Your task to perform on an android device: toggle translation in the chrome app Image 0: 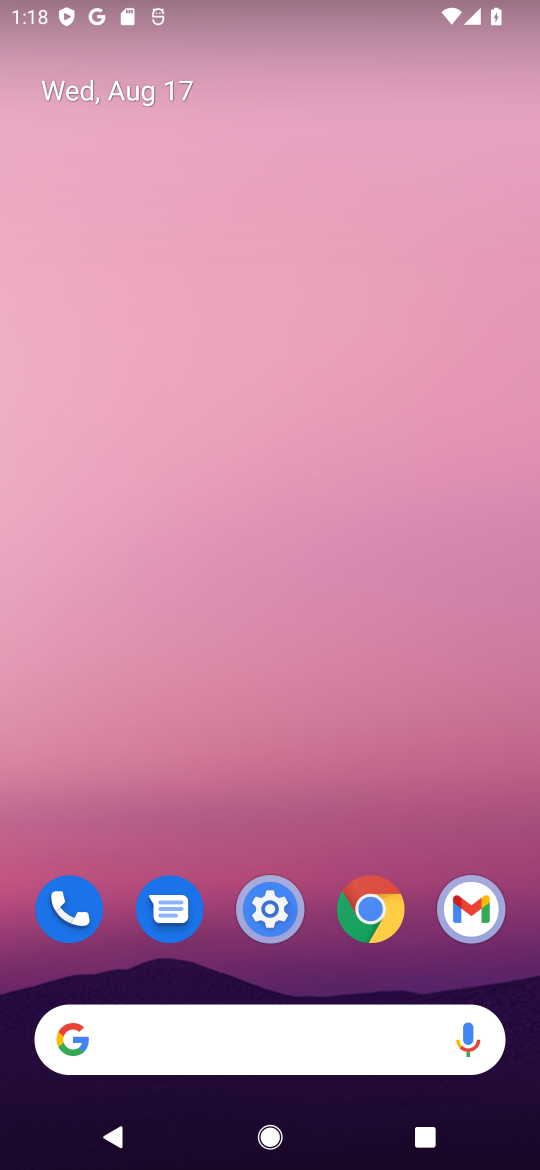
Step 0: click (373, 913)
Your task to perform on an android device: toggle translation in the chrome app Image 1: 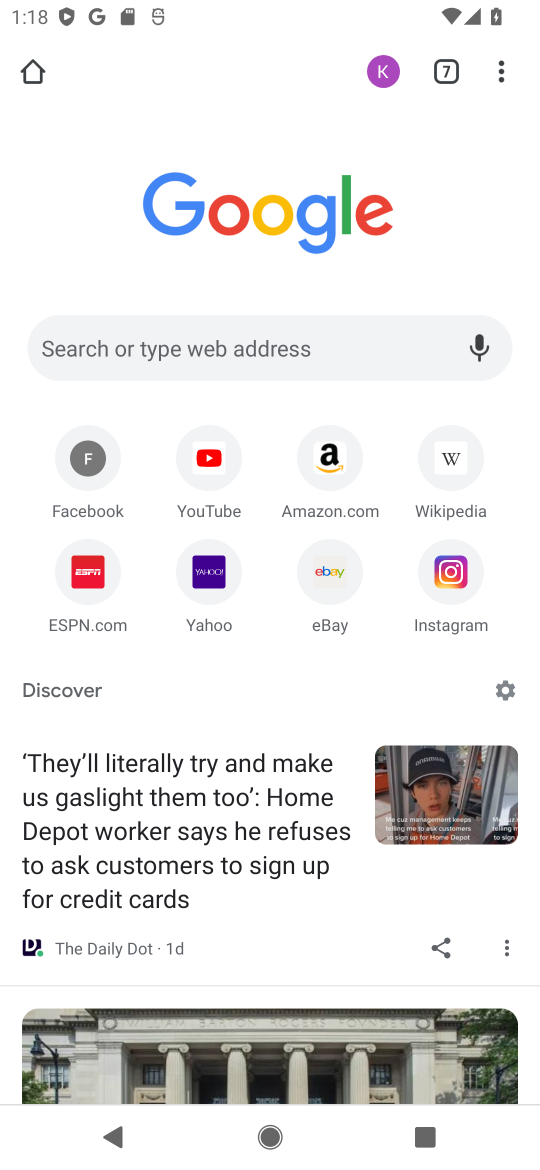
Step 1: click (498, 72)
Your task to perform on an android device: toggle translation in the chrome app Image 2: 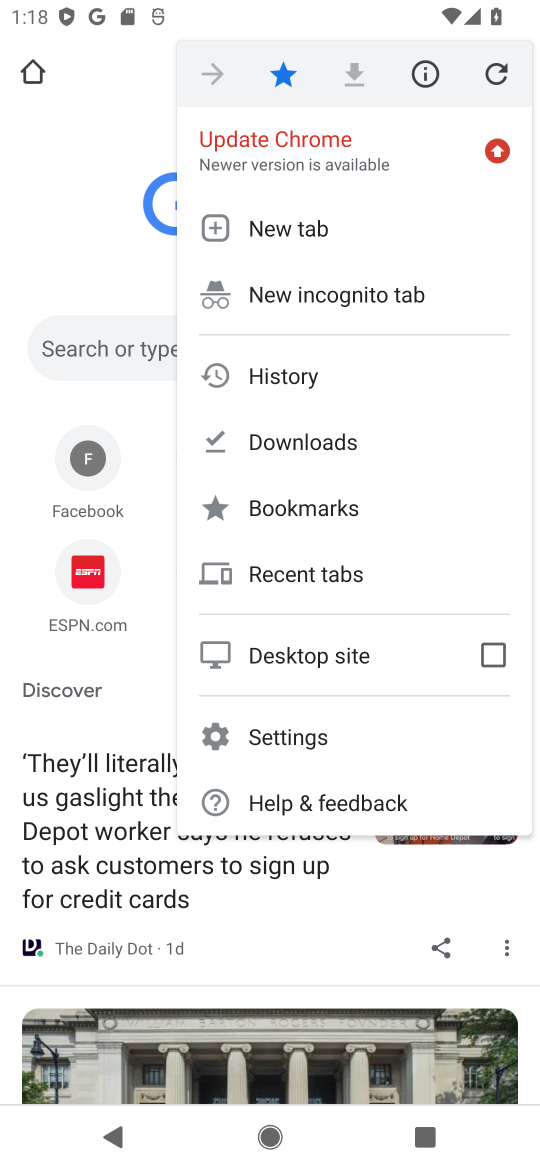
Step 2: click (274, 725)
Your task to perform on an android device: toggle translation in the chrome app Image 3: 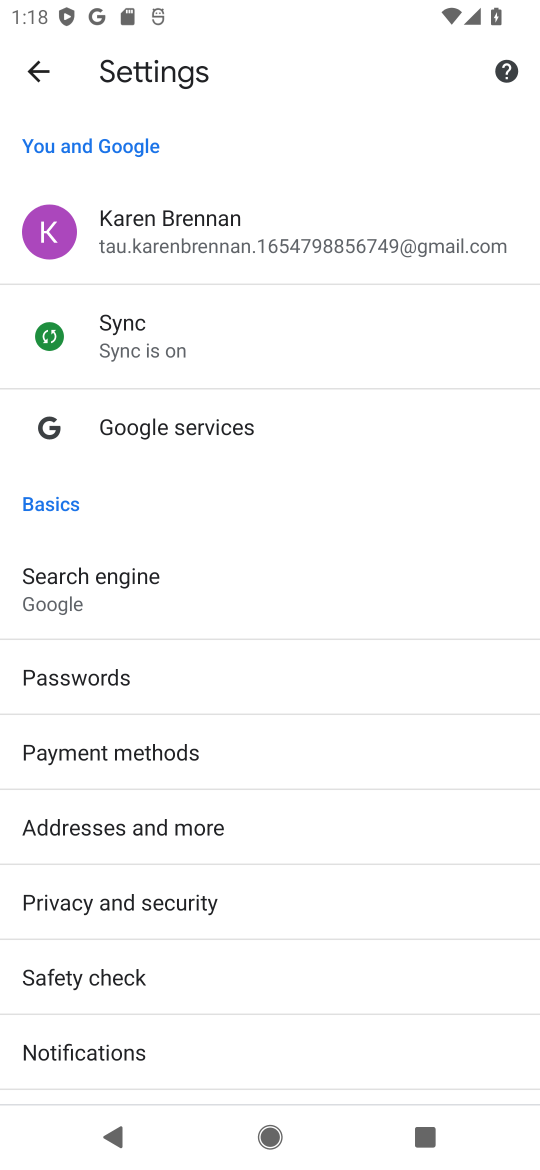
Step 3: drag from (291, 970) to (251, 506)
Your task to perform on an android device: toggle translation in the chrome app Image 4: 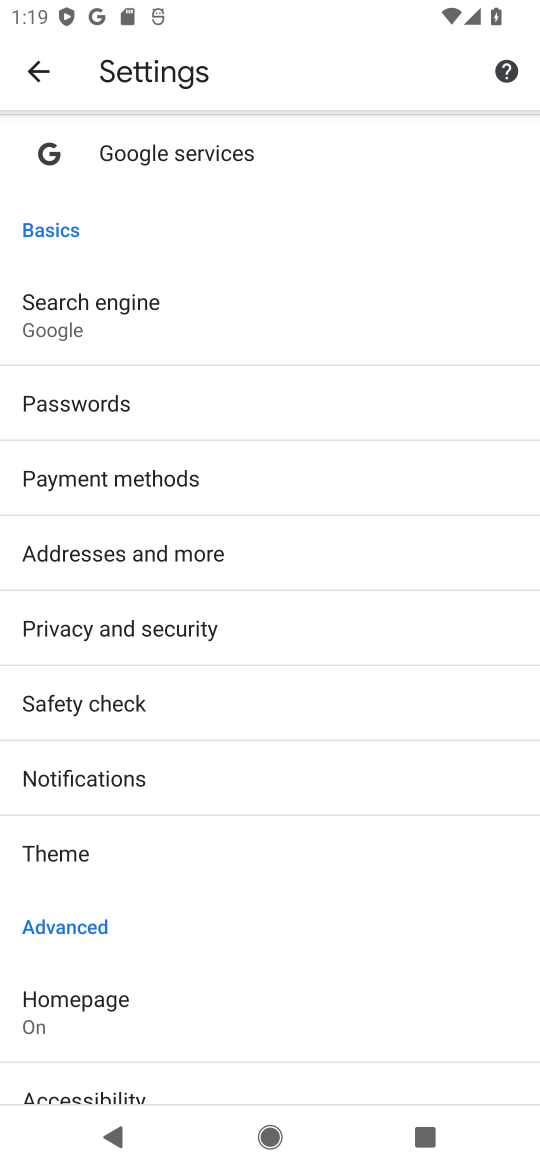
Step 4: drag from (220, 958) to (217, 622)
Your task to perform on an android device: toggle translation in the chrome app Image 5: 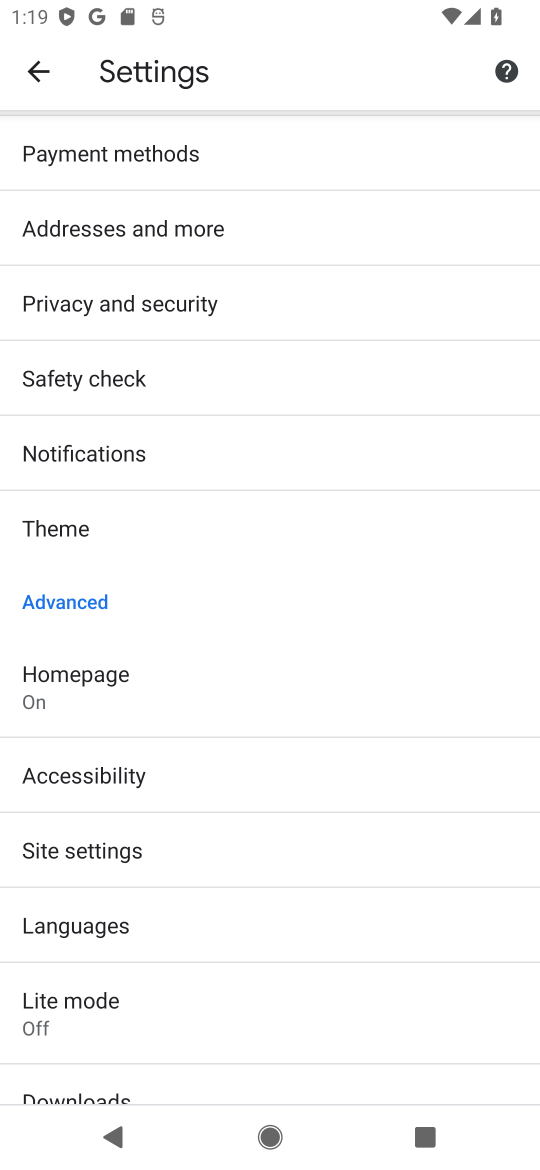
Step 5: click (95, 917)
Your task to perform on an android device: toggle translation in the chrome app Image 6: 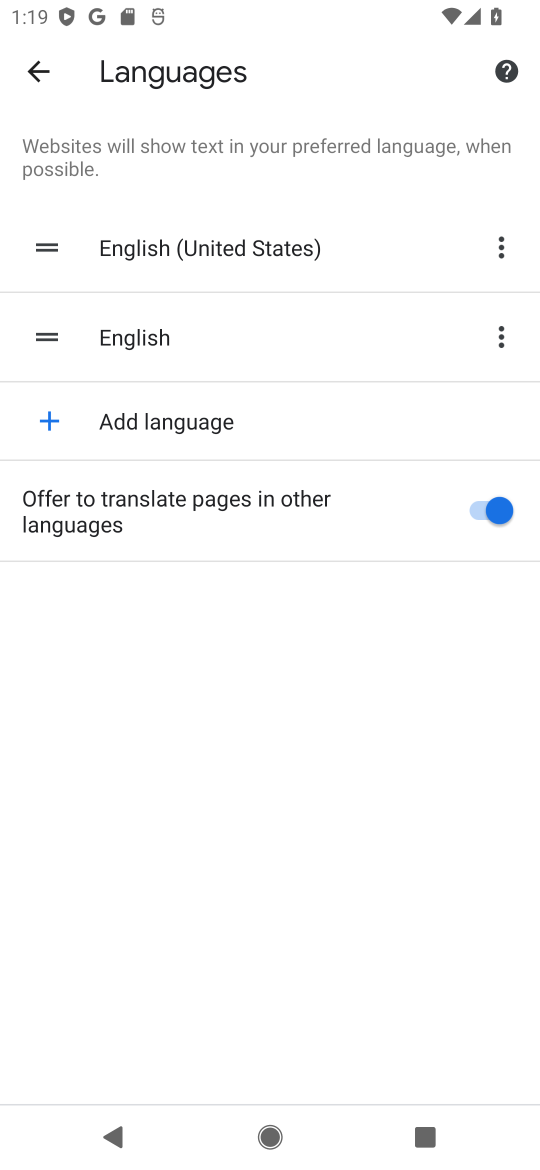
Step 6: click (486, 507)
Your task to perform on an android device: toggle translation in the chrome app Image 7: 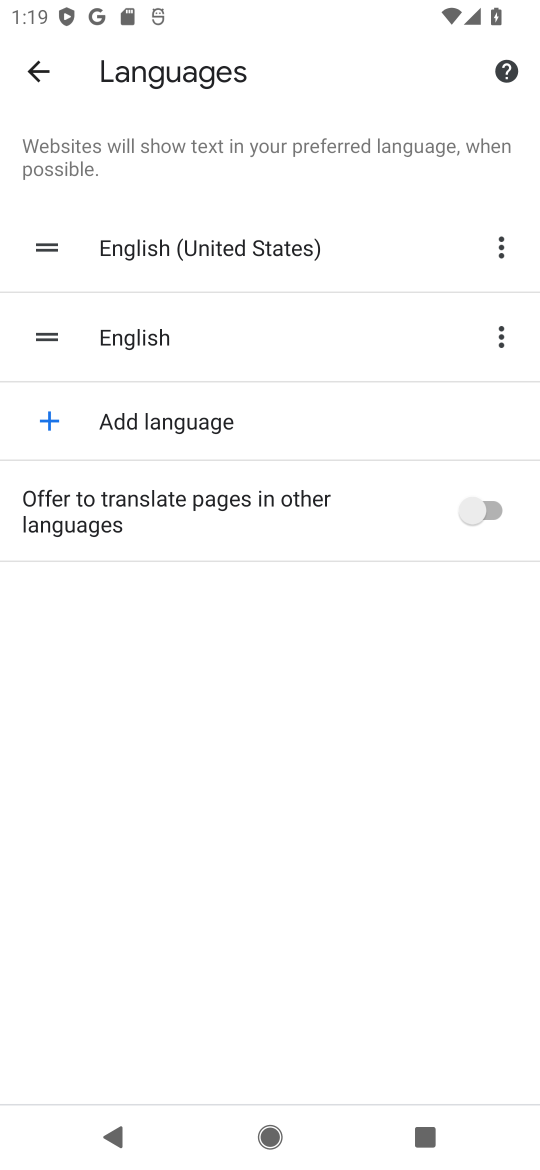
Step 7: task complete